Your task to perform on an android device: Open Android settings Image 0: 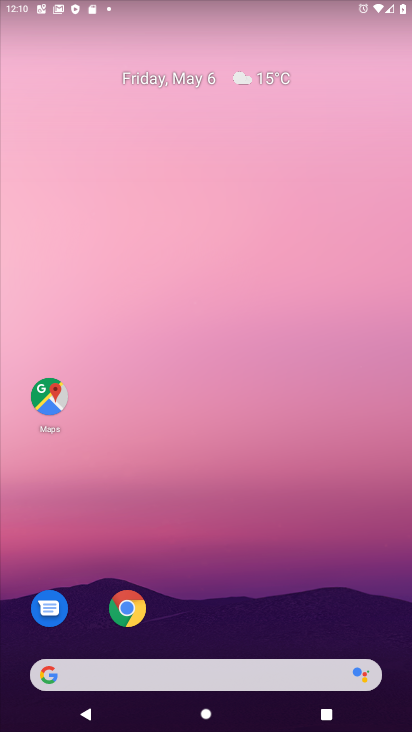
Step 0: drag from (237, 436) to (259, 107)
Your task to perform on an android device: Open Android settings Image 1: 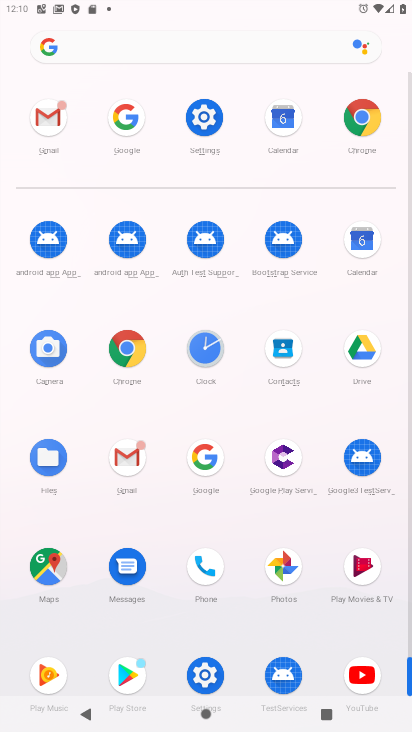
Step 1: click (212, 131)
Your task to perform on an android device: Open Android settings Image 2: 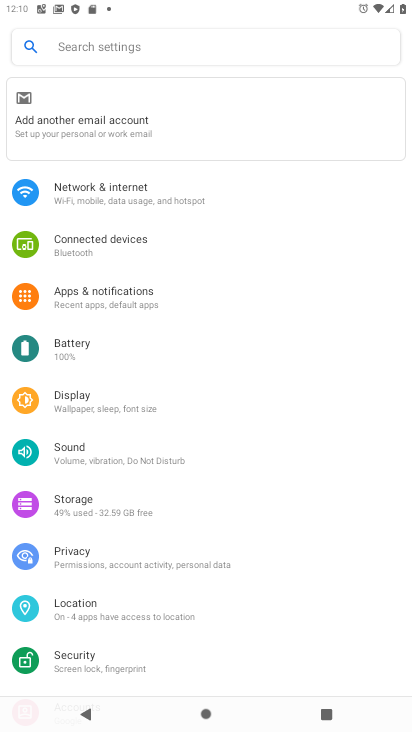
Step 2: drag from (191, 628) to (204, 197)
Your task to perform on an android device: Open Android settings Image 3: 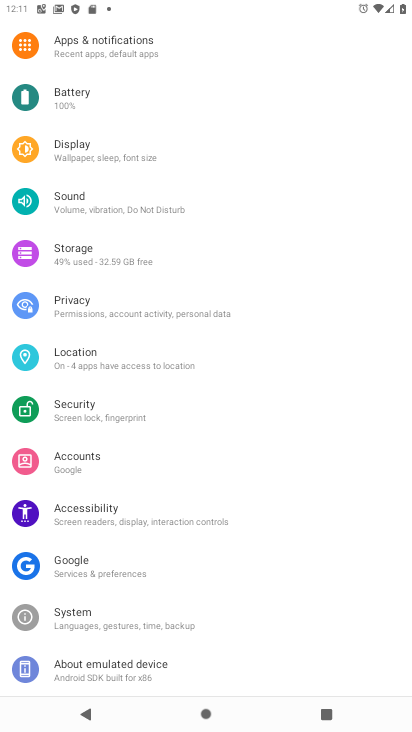
Step 3: click (131, 668)
Your task to perform on an android device: Open Android settings Image 4: 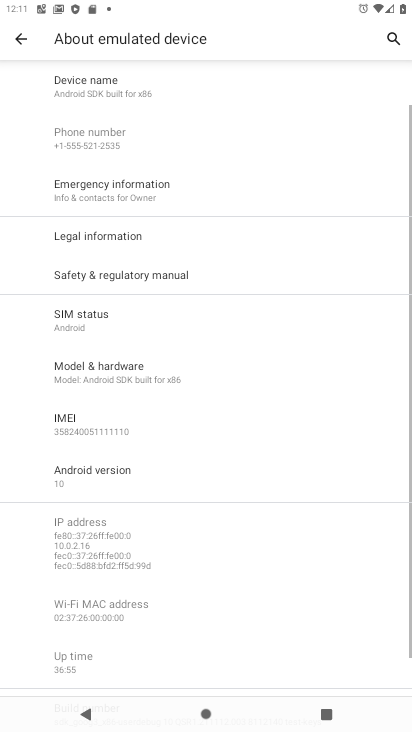
Step 4: click (109, 483)
Your task to perform on an android device: Open Android settings Image 5: 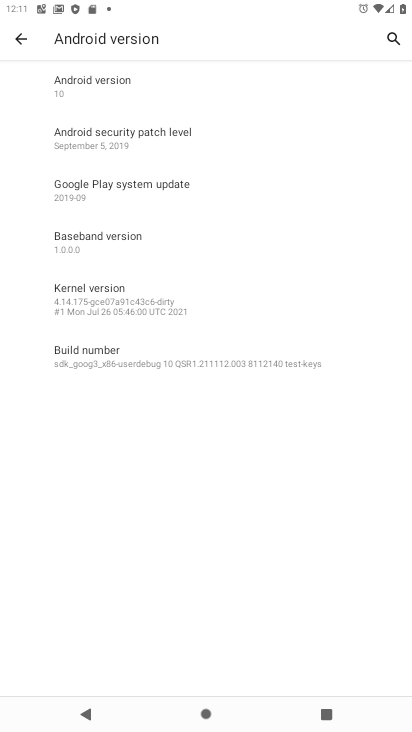
Step 5: task complete